Your task to perform on an android device: Go to Google maps Image 0: 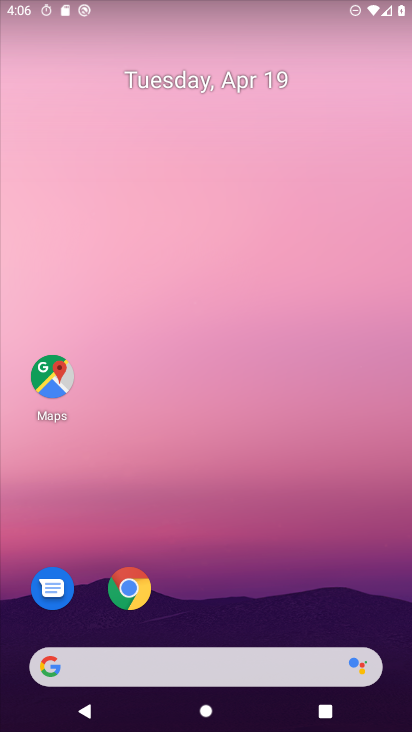
Step 0: click (49, 375)
Your task to perform on an android device: Go to Google maps Image 1: 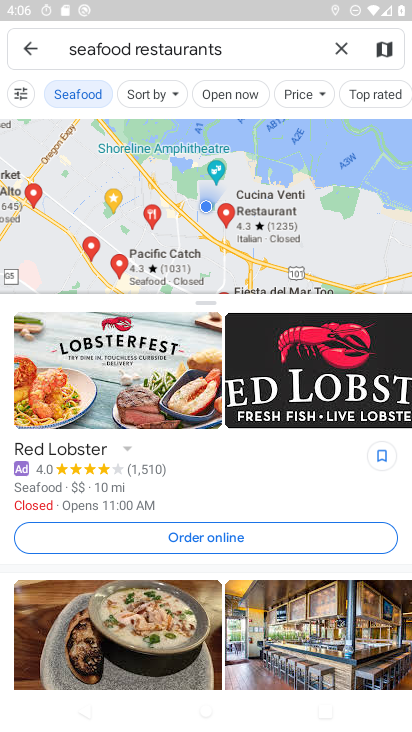
Step 1: task complete